Your task to perform on an android device: check storage Image 0: 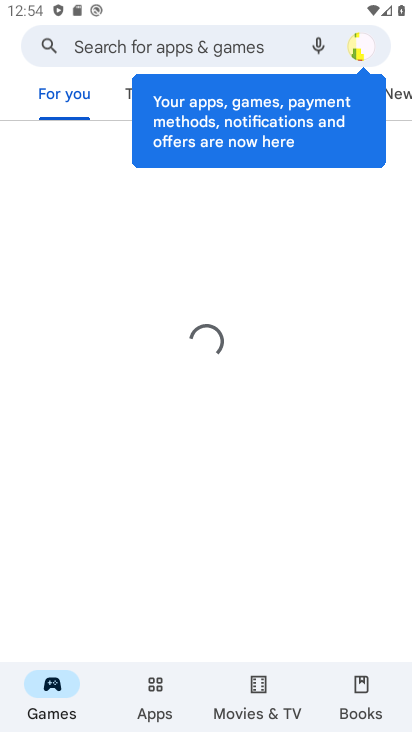
Step 0: press home button
Your task to perform on an android device: check storage Image 1: 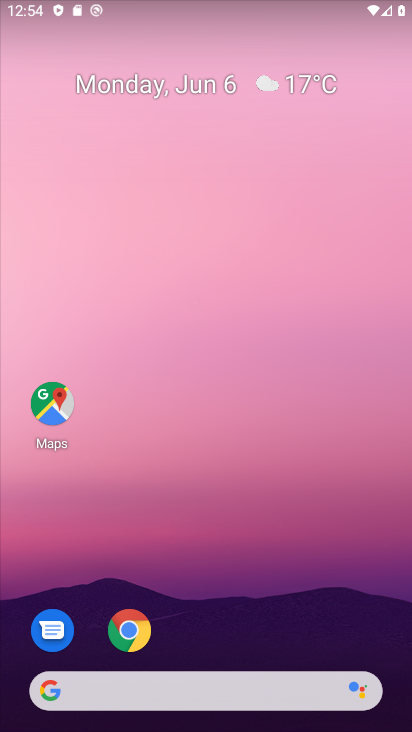
Step 1: drag from (172, 731) to (227, 88)
Your task to perform on an android device: check storage Image 2: 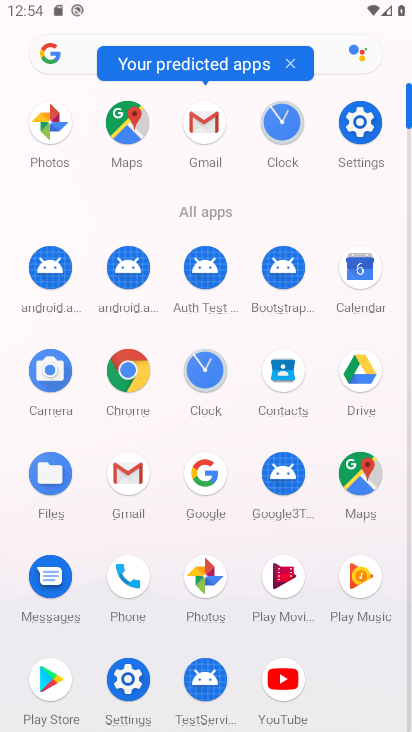
Step 2: click (356, 131)
Your task to perform on an android device: check storage Image 3: 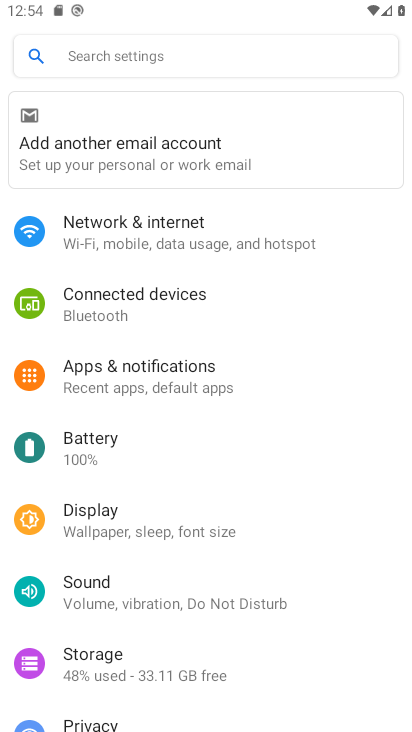
Step 3: click (149, 667)
Your task to perform on an android device: check storage Image 4: 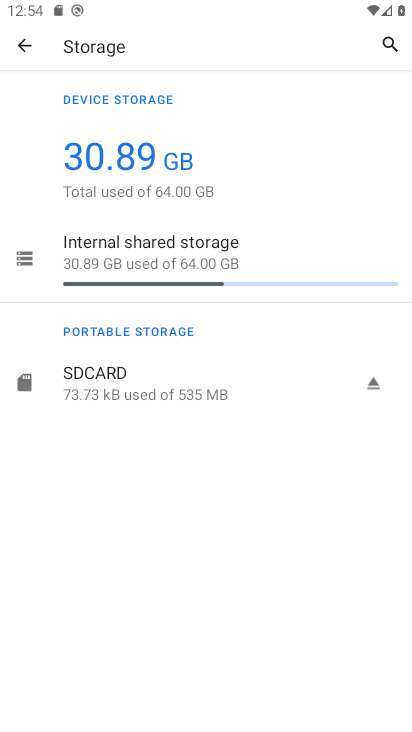
Step 4: task complete